Your task to perform on an android device: turn on location history Image 0: 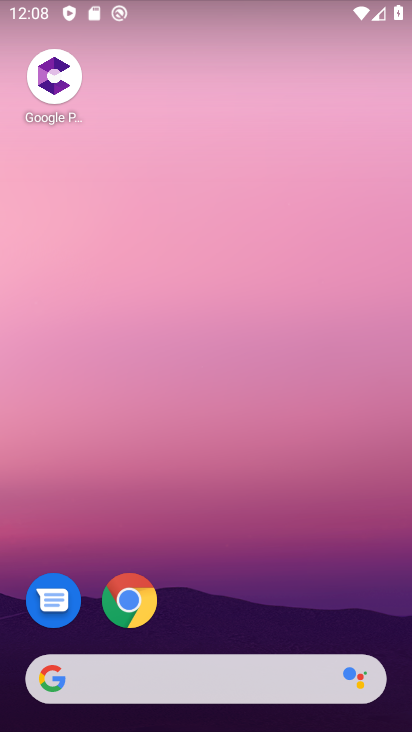
Step 0: press home button
Your task to perform on an android device: turn on location history Image 1: 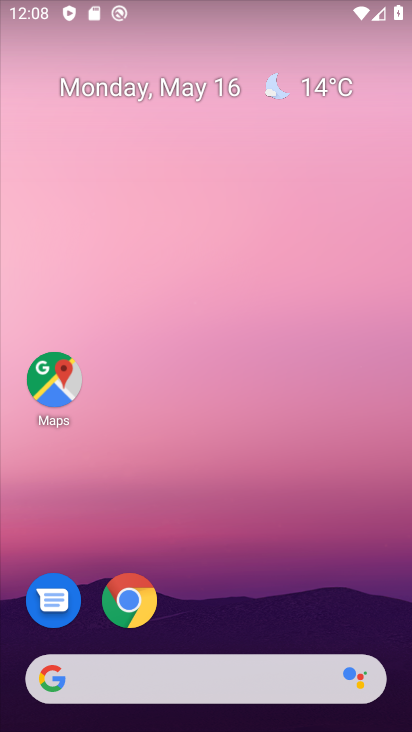
Step 1: drag from (215, 632) to (254, 75)
Your task to perform on an android device: turn on location history Image 2: 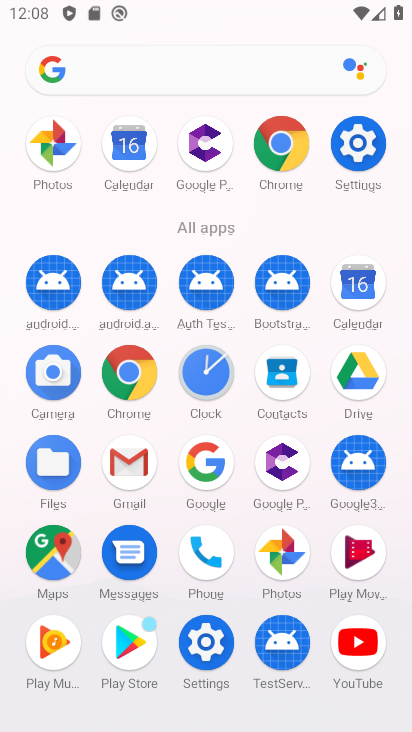
Step 2: click (203, 635)
Your task to perform on an android device: turn on location history Image 3: 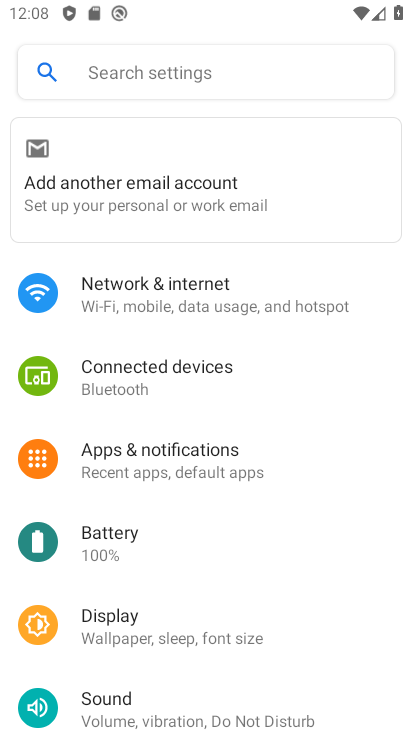
Step 3: drag from (175, 679) to (194, 216)
Your task to perform on an android device: turn on location history Image 4: 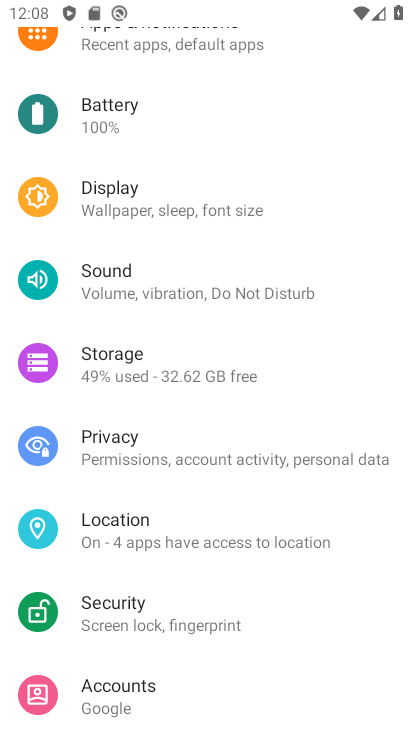
Step 4: click (164, 522)
Your task to perform on an android device: turn on location history Image 5: 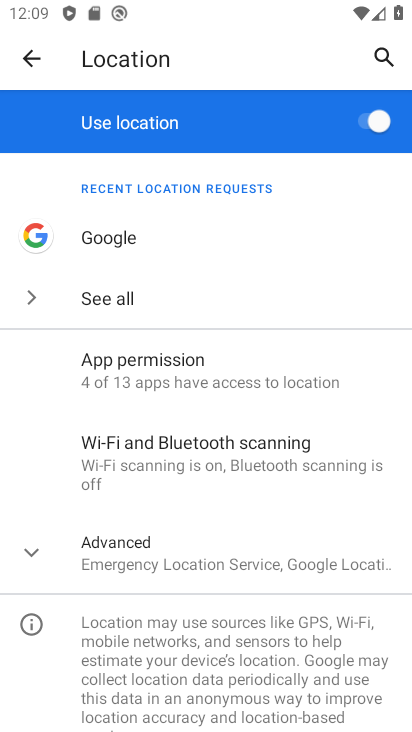
Step 5: click (35, 546)
Your task to perform on an android device: turn on location history Image 6: 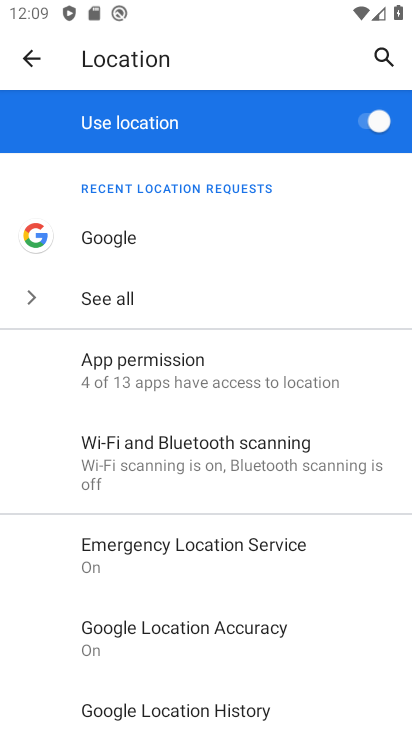
Step 6: click (210, 703)
Your task to perform on an android device: turn on location history Image 7: 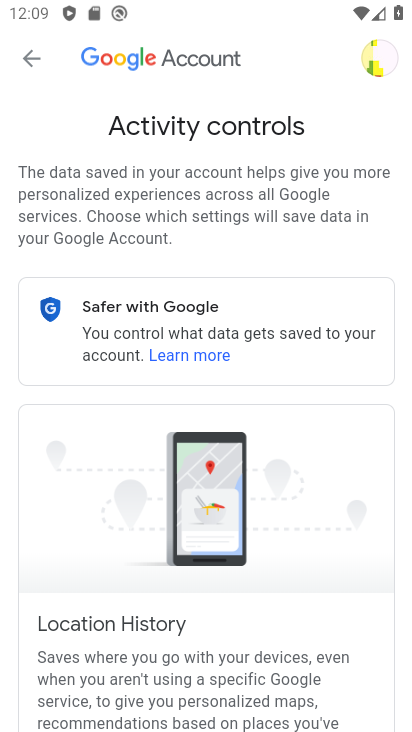
Step 7: task complete